Your task to perform on an android device: empty trash in the gmail app Image 0: 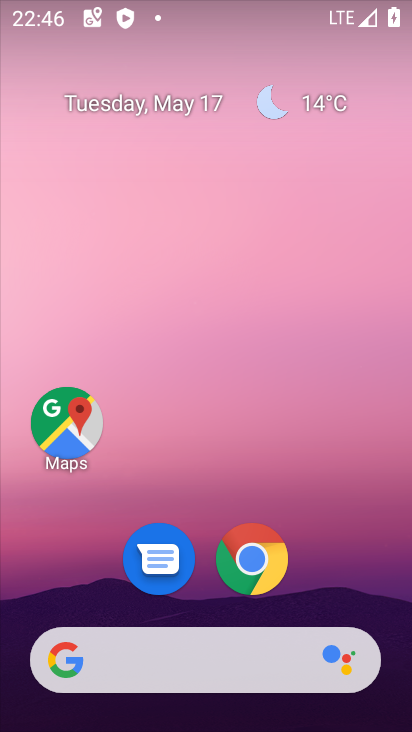
Step 0: drag from (341, 559) to (310, 93)
Your task to perform on an android device: empty trash in the gmail app Image 1: 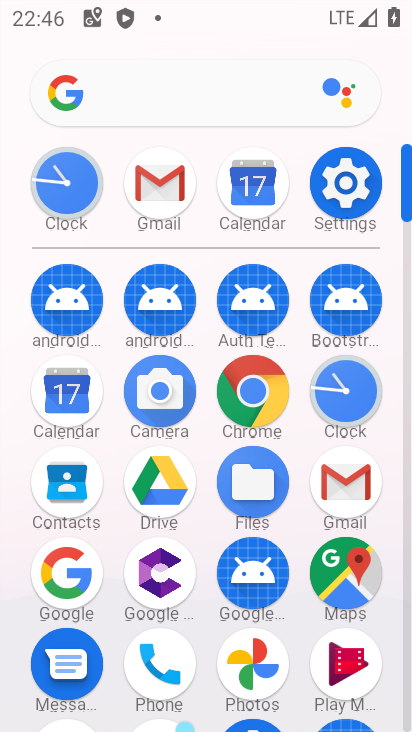
Step 1: click (176, 177)
Your task to perform on an android device: empty trash in the gmail app Image 2: 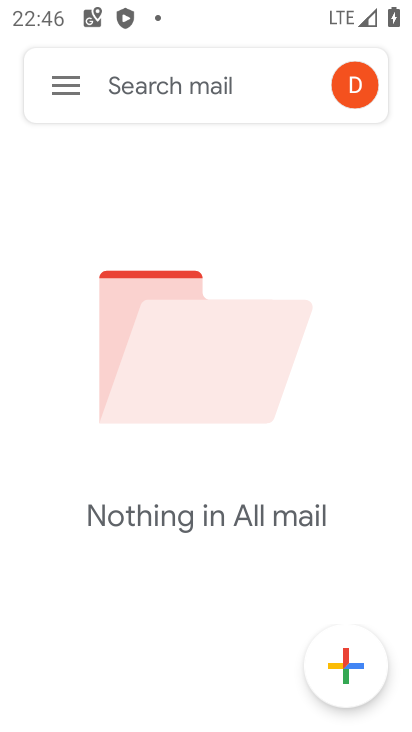
Step 2: click (69, 73)
Your task to perform on an android device: empty trash in the gmail app Image 3: 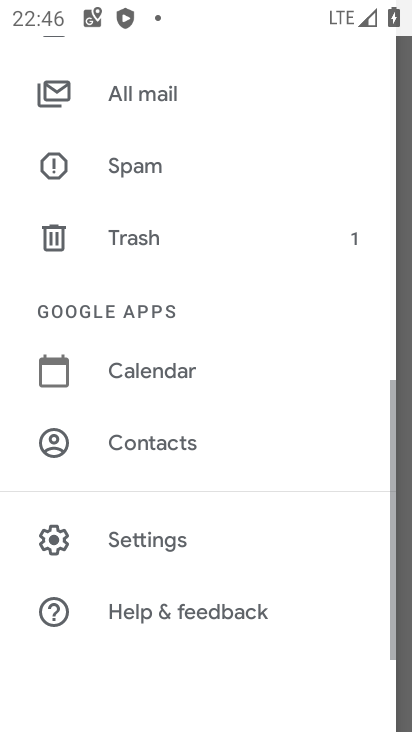
Step 3: click (156, 241)
Your task to perform on an android device: empty trash in the gmail app Image 4: 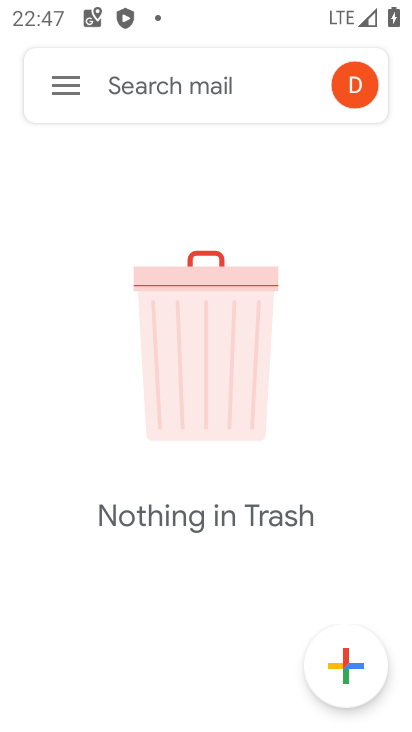
Step 4: task complete